Your task to perform on an android device: see tabs open on other devices in the chrome app Image 0: 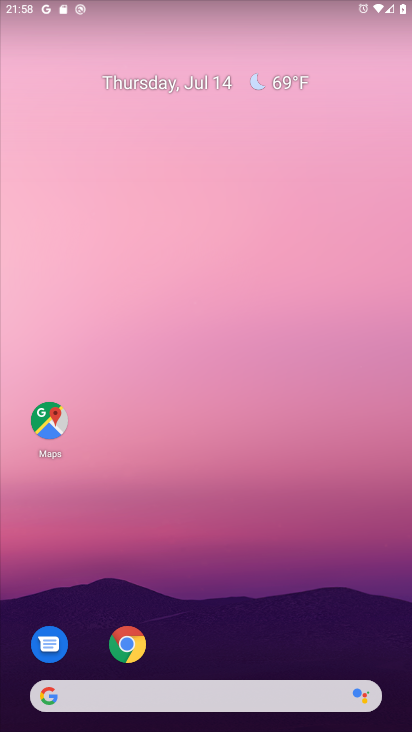
Step 0: click (121, 654)
Your task to perform on an android device: see tabs open on other devices in the chrome app Image 1: 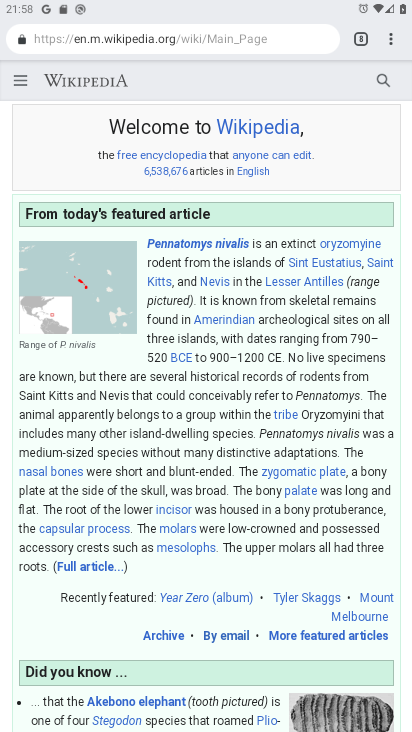
Step 1: click (384, 37)
Your task to perform on an android device: see tabs open on other devices in the chrome app Image 2: 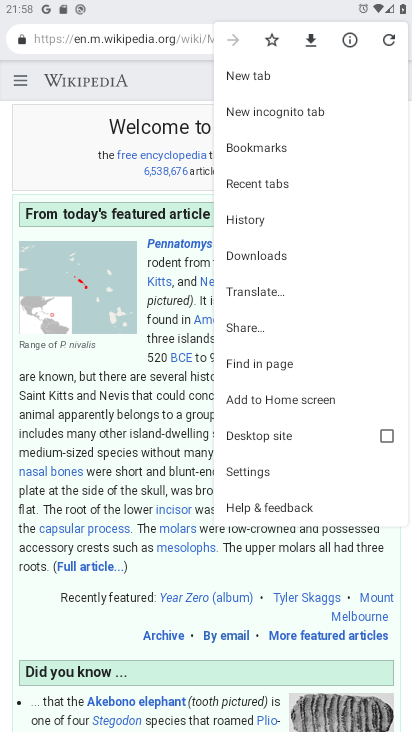
Step 2: click (275, 178)
Your task to perform on an android device: see tabs open on other devices in the chrome app Image 3: 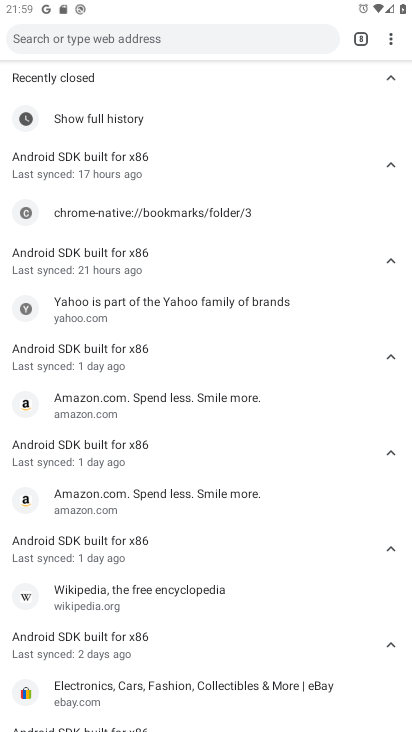
Step 3: task complete